Your task to perform on an android device: manage bookmarks in the chrome app Image 0: 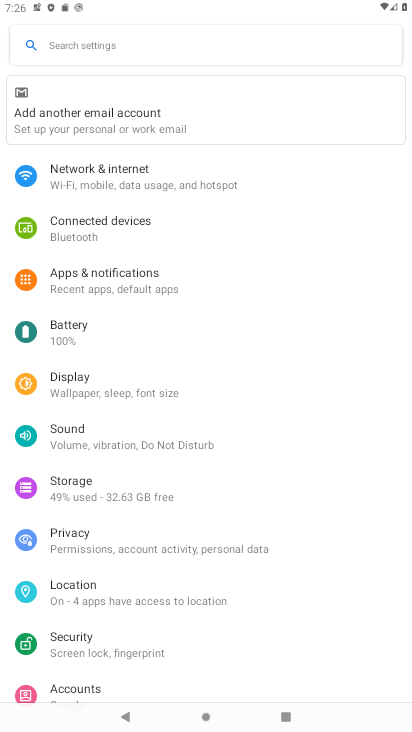
Step 0: press home button
Your task to perform on an android device: manage bookmarks in the chrome app Image 1: 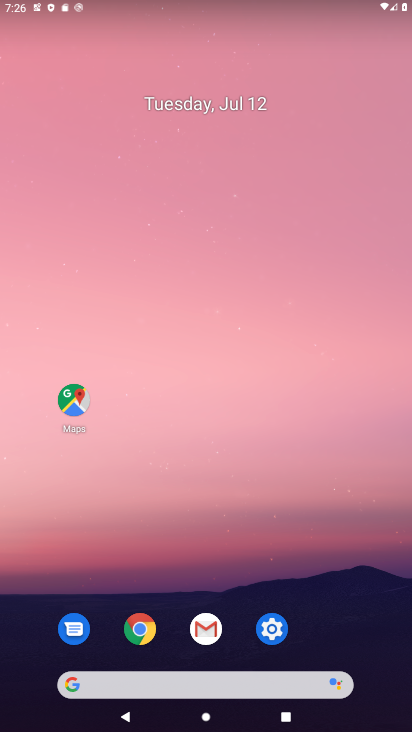
Step 1: click (146, 620)
Your task to perform on an android device: manage bookmarks in the chrome app Image 2: 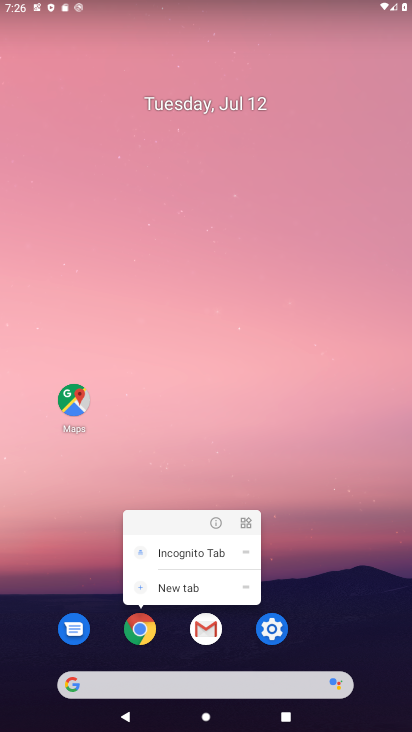
Step 2: click (136, 626)
Your task to perform on an android device: manage bookmarks in the chrome app Image 3: 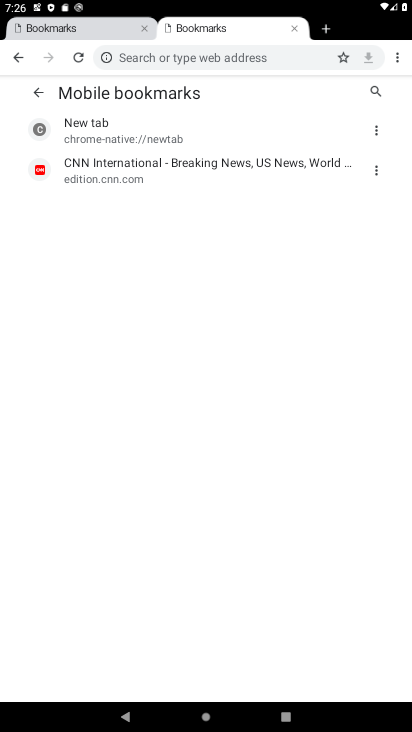
Step 3: click (392, 61)
Your task to perform on an android device: manage bookmarks in the chrome app Image 4: 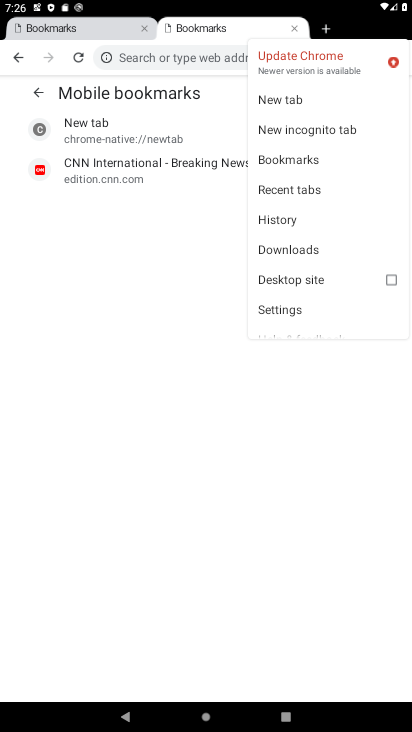
Step 4: click (293, 157)
Your task to perform on an android device: manage bookmarks in the chrome app Image 5: 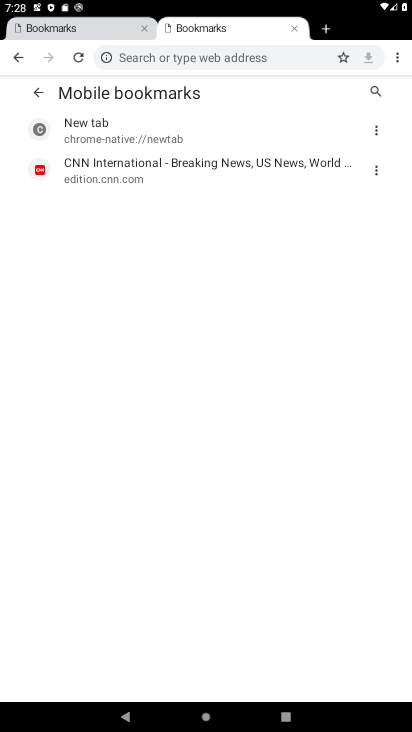
Step 5: task complete